Your task to perform on an android device: Is it going to rain tomorrow? Image 0: 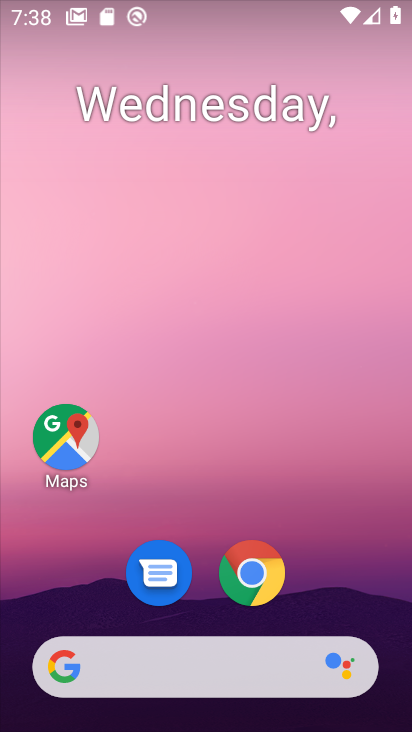
Step 0: click (141, 669)
Your task to perform on an android device: Is it going to rain tomorrow? Image 1: 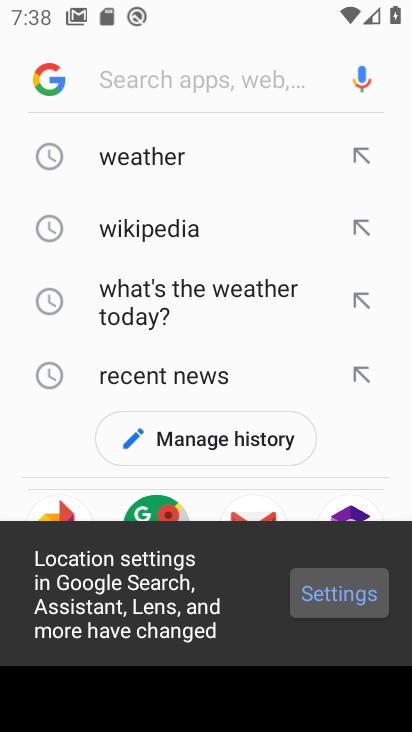
Step 1: click (132, 158)
Your task to perform on an android device: Is it going to rain tomorrow? Image 2: 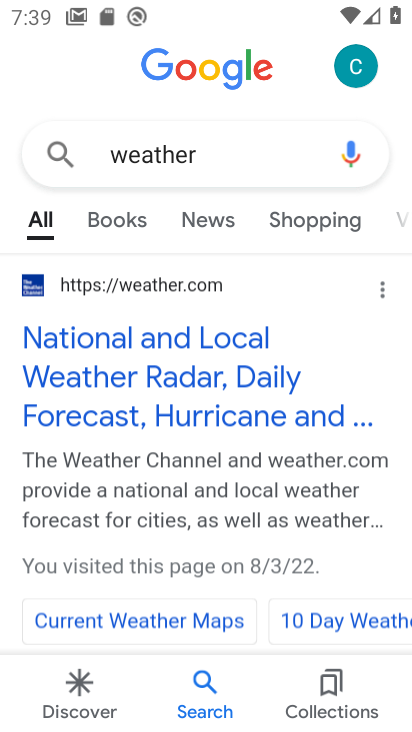
Step 2: click (139, 292)
Your task to perform on an android device: Is it going to rain tomorrow? Image 3: 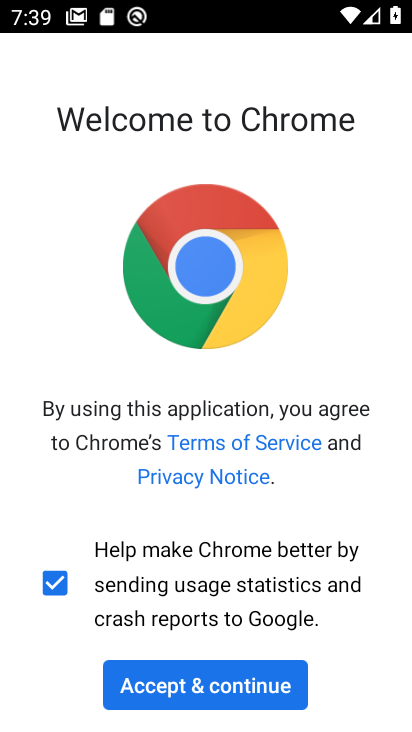
Step 3: click (169, 689)
Your task to perform on an android device: Is it going to rain tomorrow? Image 4: 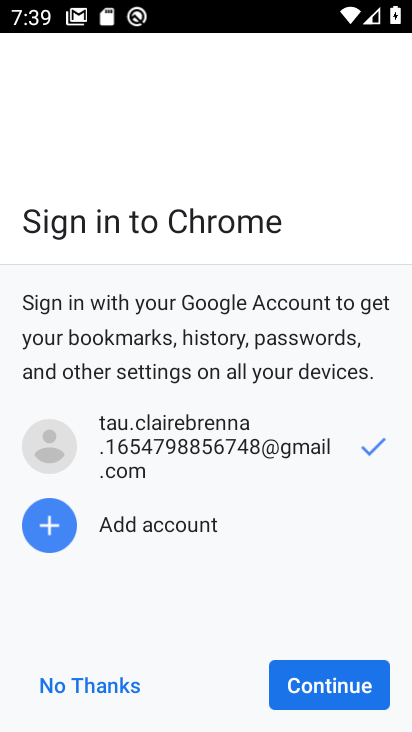
Step 4: click (84, 688)
Your task to perform on an android device: Is it going to rain tomorrow? Image 5: 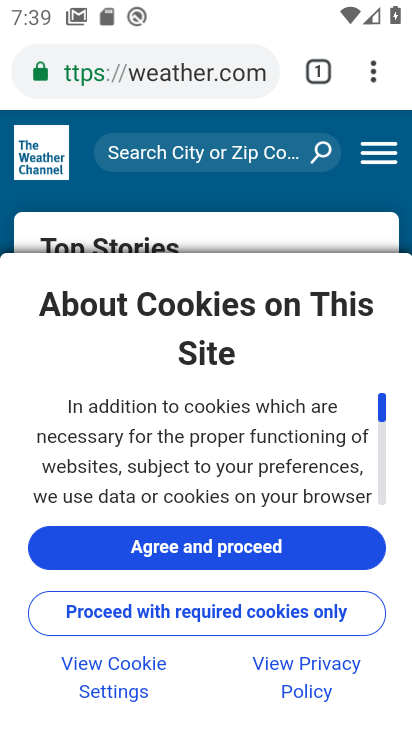
Step 5: click (247, 541)
Your task to perform on an android device: Is it going to rain tomorrow? Image 6: 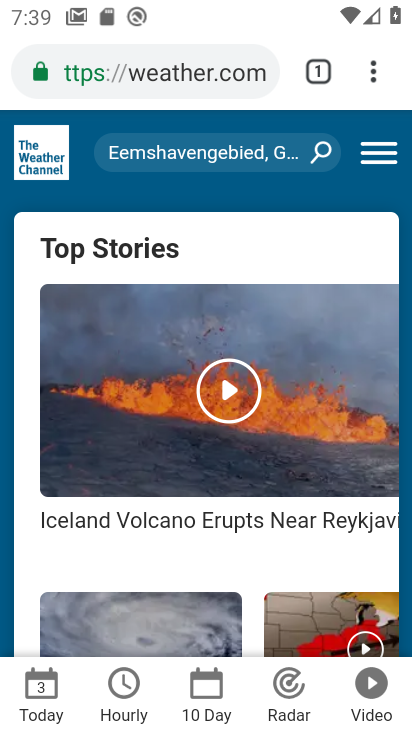
Step 6: click (209, 679)
Your task to perform on an android device: Is it going to rain tomorrow? Image 7: 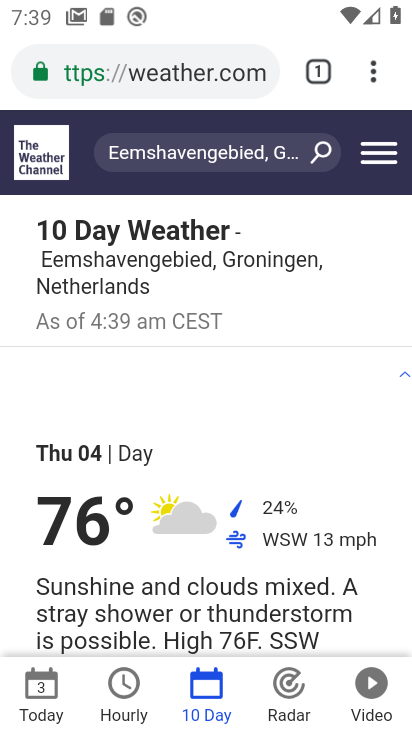
Step 7: task complete